Your task to perform on an android device: turn off javascript in the chrome app Image 0: 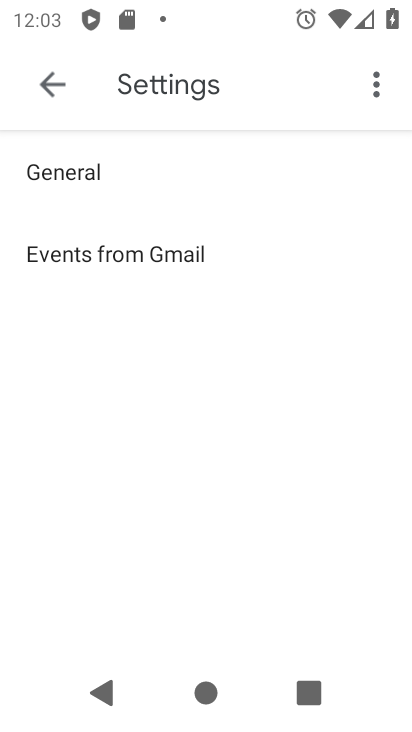
Step 0: press home button
Your task to perform on an android device: turn off javascript in the chrome app Image 1: 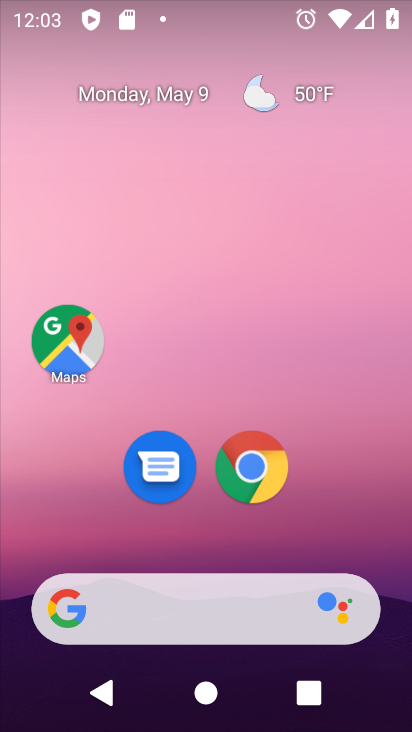
Step 1: click (252, 461)
Your task to perform on an android device: turn off javascript in the chrome app Image 2: 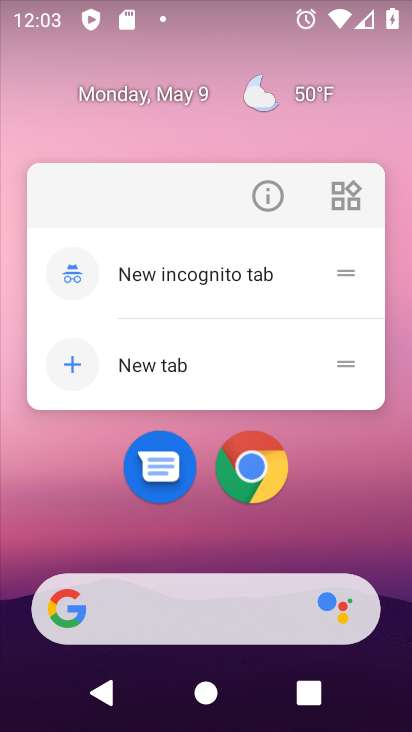
Step 2: click (248, 462)
Your task to perform on an android device: turn off javascript in the chrome app Image 3: 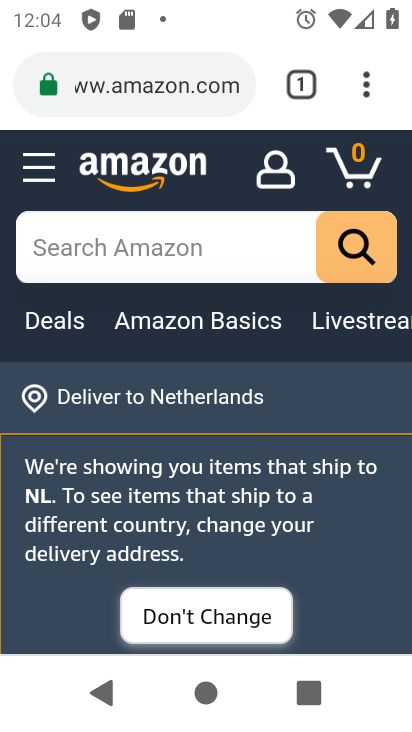
Step 3: click (356, 81)
Your task to perform on an android device: turn off javascript in the chrome app Image 4: 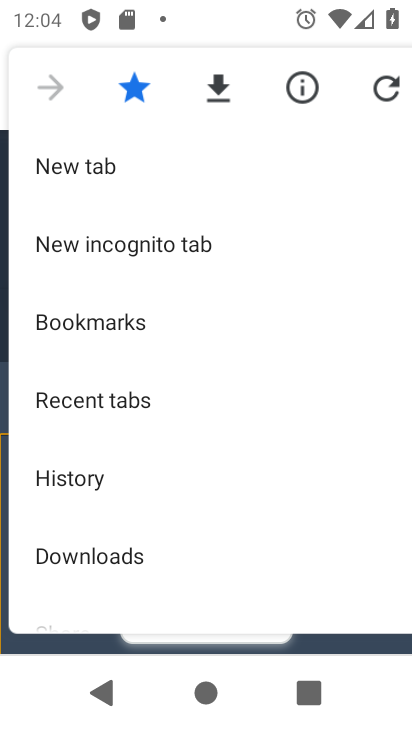
Step 4: drag from (211, 555) to (235, 178)
Your task to perform on an android device: turn off javascript in the chrome app Image 5: 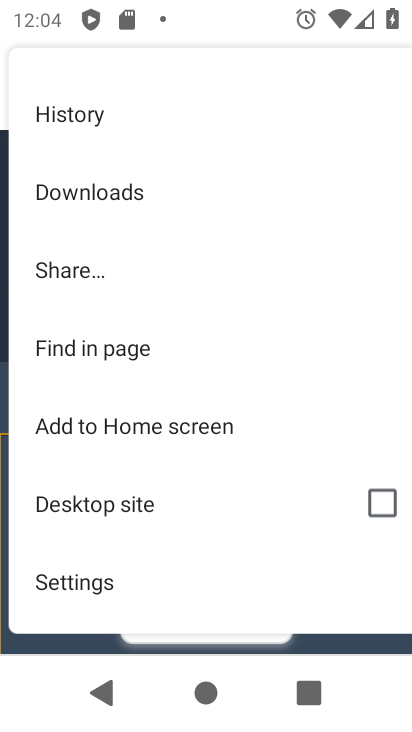
Step 5: drag from (132, 583) to (154, 426)
Your task to perform on an android device: turn off javascript in the chrome app Image 6: 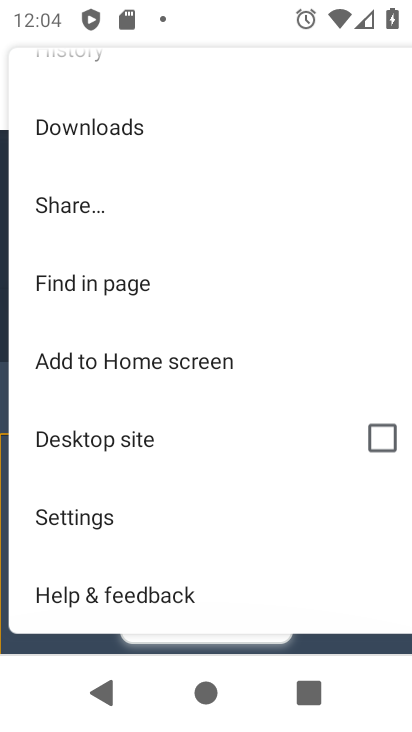
Step 6: drag from (162, 378) to (175, 302)
Your task to perform on an android device: turn off javascript in the chrome app Image 7: 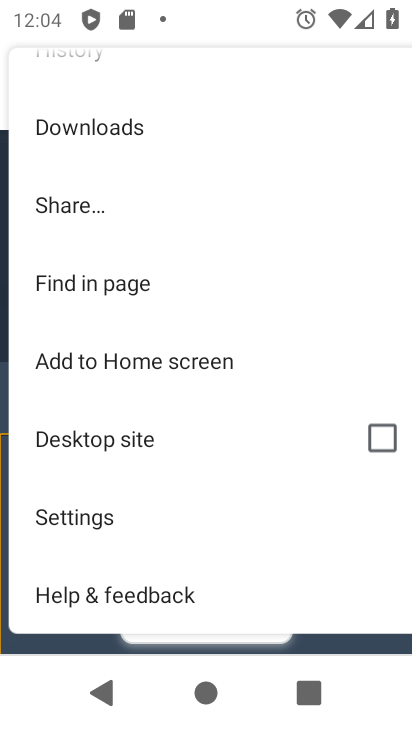
Step 7: click (130, 513)
Your task to perform on an android device: turn off javascript in the chrome app Image 8: 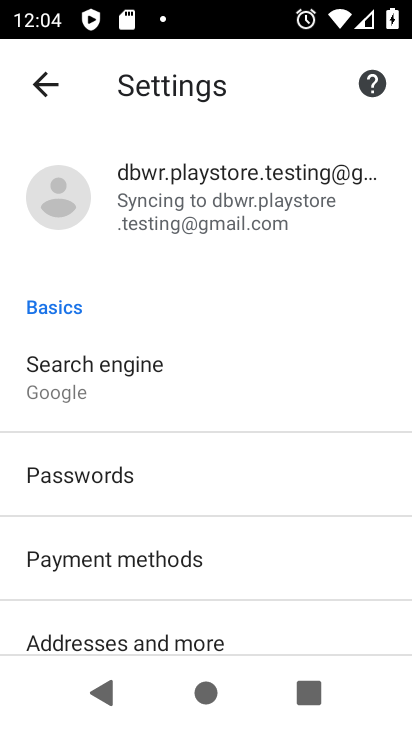
Step 8: drag from (236, 614) to (265, 171)
Your task to perform on an android device: turn off javascript in the chrome app Image 9: 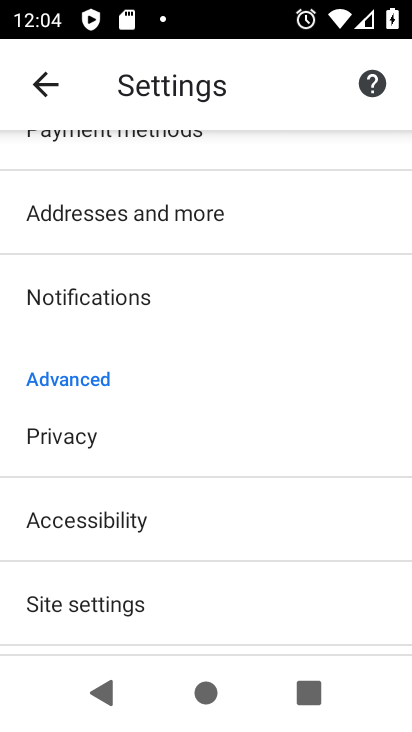
Step 9: click (159, 603)
Your task to perform on an android device: turn off javascript in the chrome app Image 10: 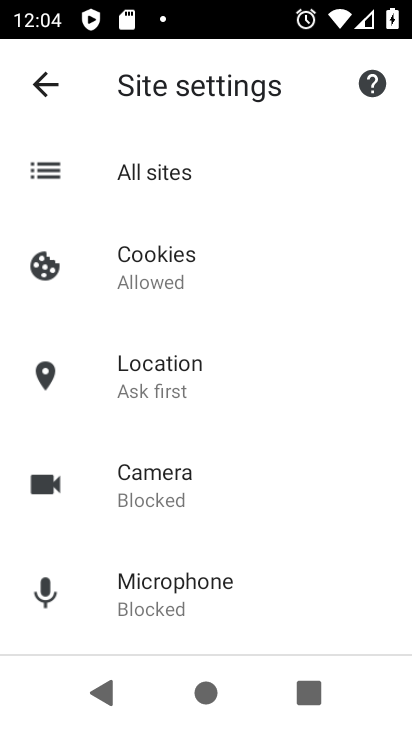
Step 10: drag from (211, 614) to (240, 251)
Your task to perform on an android device: turn off javascript in the chrome app Image 11: 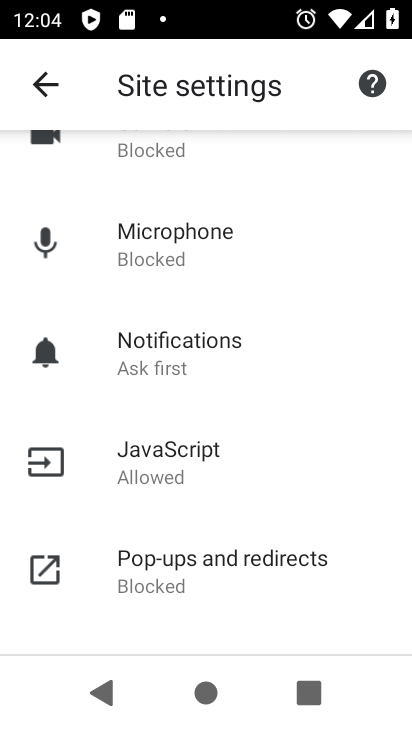
Step 11: click (191, 466)
Your task to perform on an android device: turn off javascript in the chrome app Image 12: 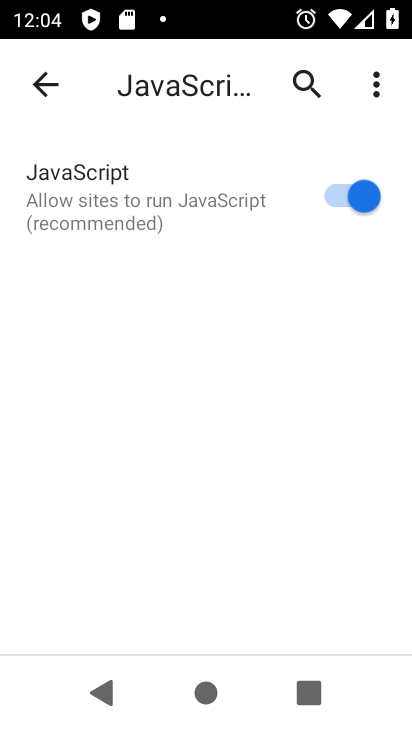
Step 12: click (345, 191)
Your task to perform on an android device: turn off javascript in the chrome app Image 13: 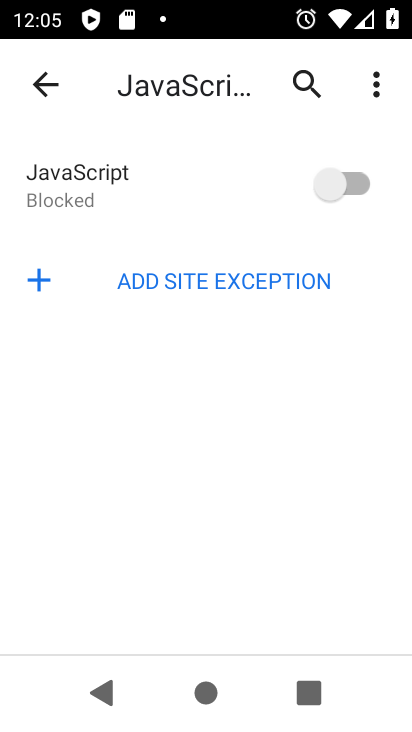
Step 13: task complete